Your task to perform on an android device: Open the phone app and click the voicemail tab. Image 0: 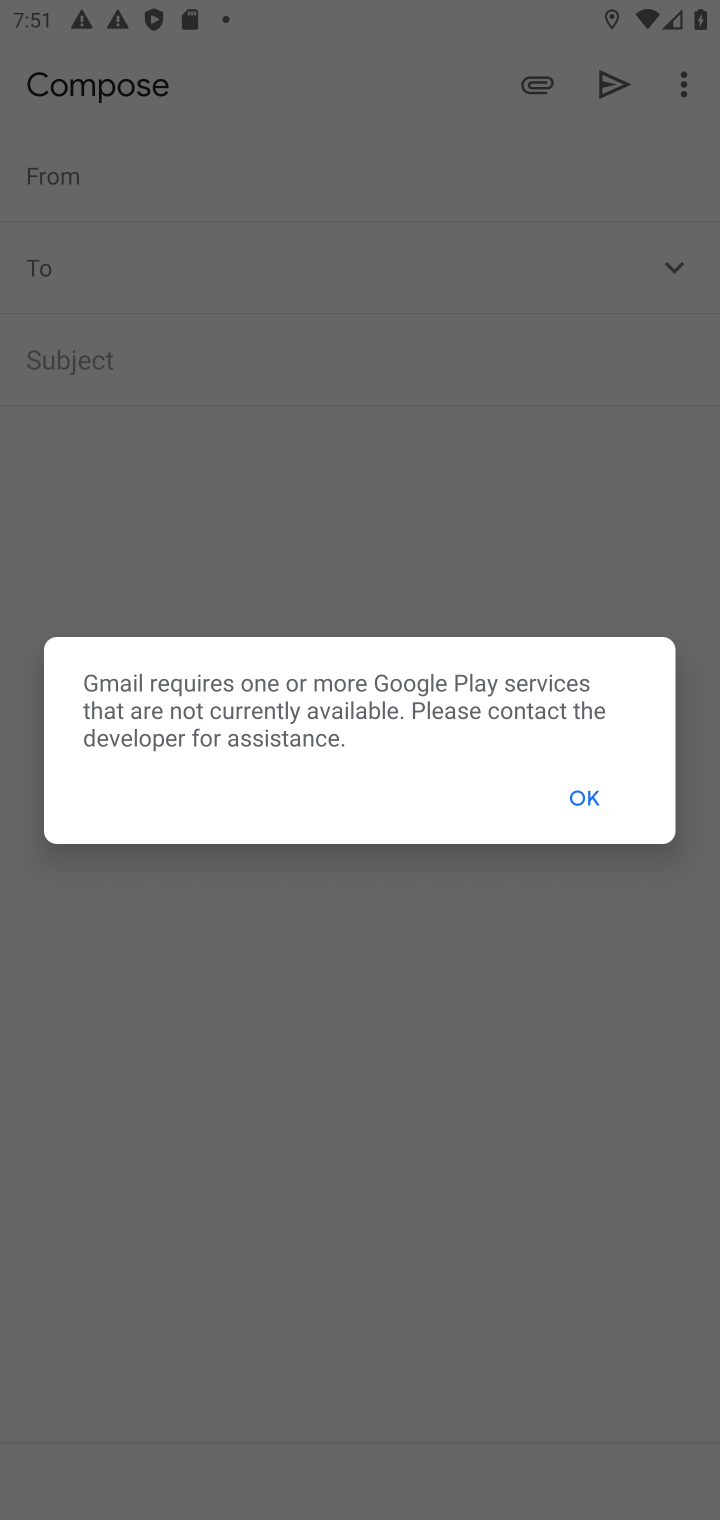
Step 0: press home button
Your task to perform on an android device: Open the phone app and click the voicemail tab. Image 1: 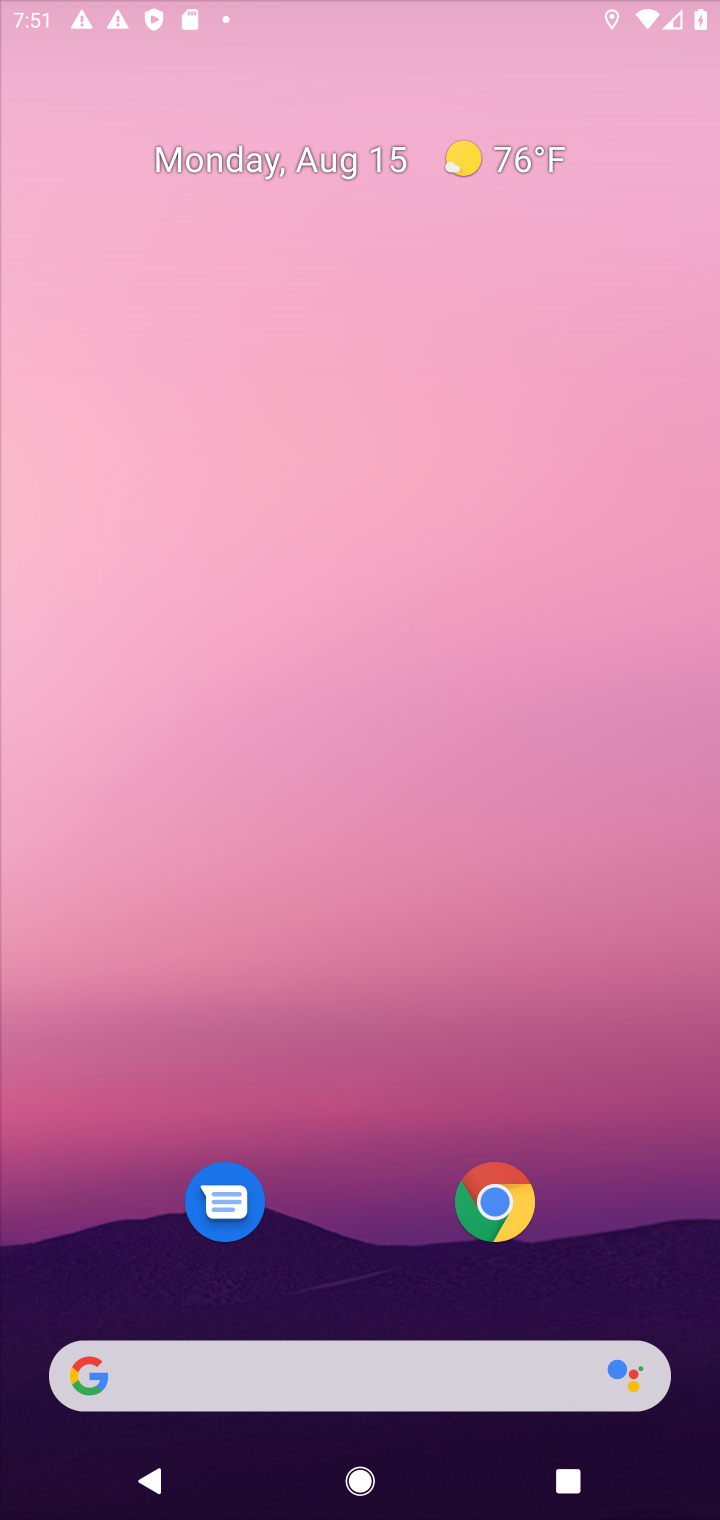
Step 1: press home button
Your task to perform on an android device: Open the phone app and click the voicemail tab. Image 2: 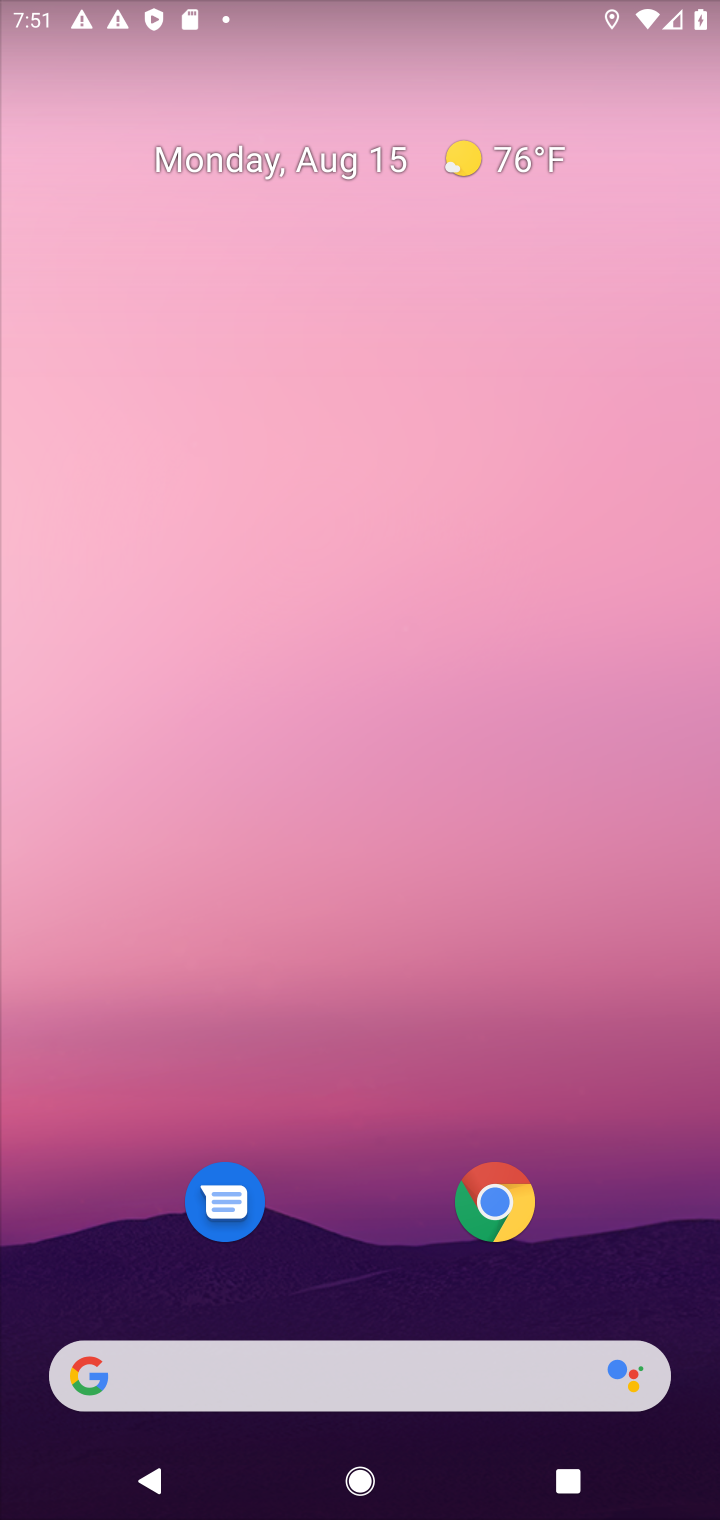
Step 2: drag from (564, 831) to (412, 78)
Your task to perform on an android device: Open the phone app and click the voicemail tab. Image 3: 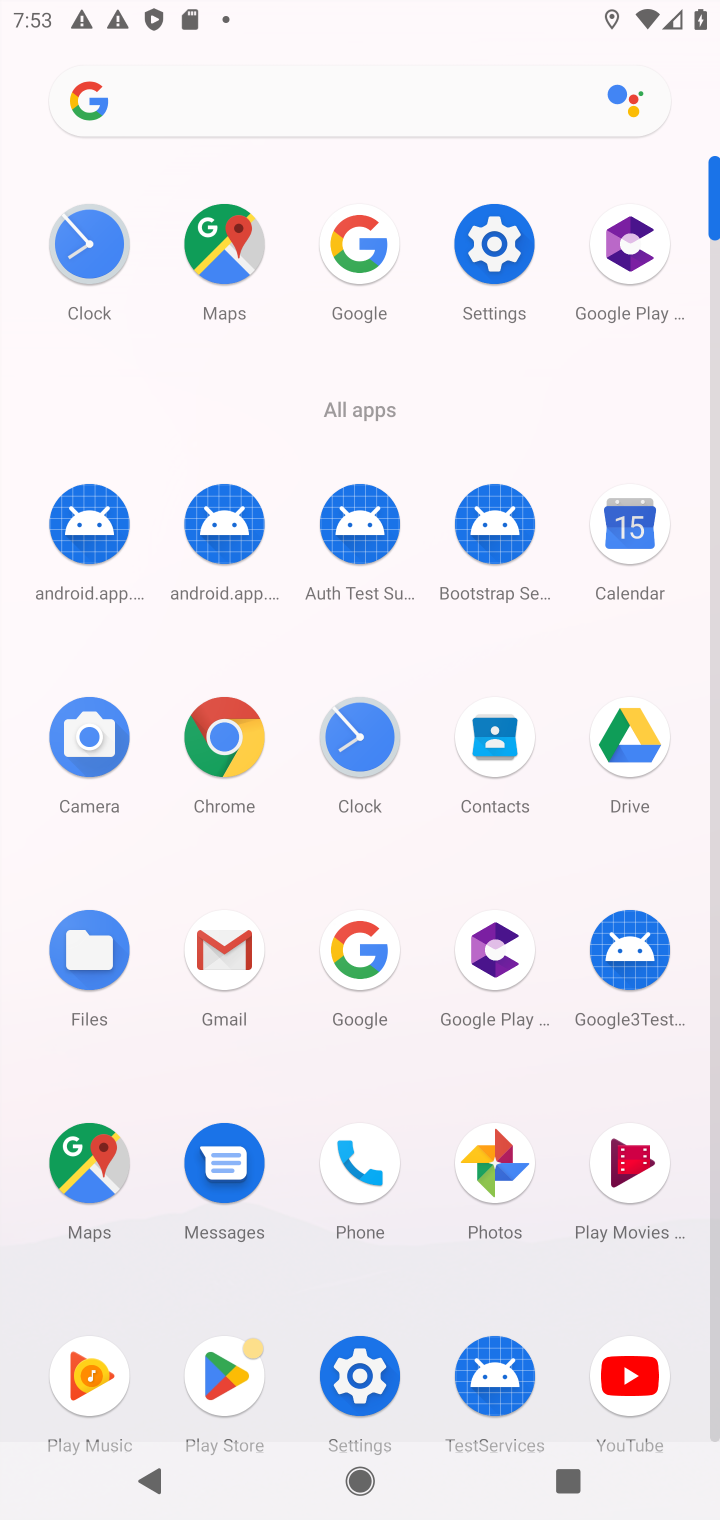
Step 3: click (368, 1180)
Your task to perform on an android device: Open the phone app and click the voicemail tab. Image 4: 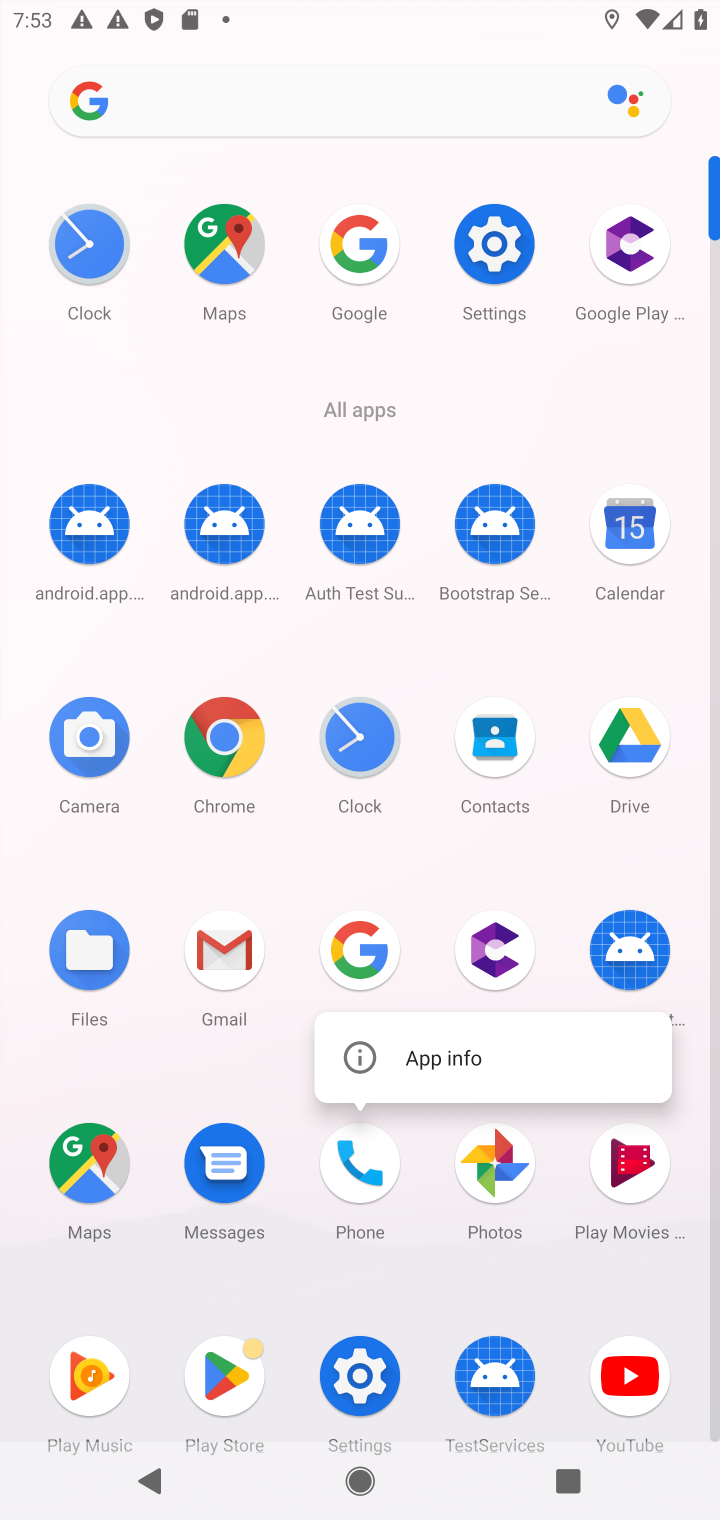
Step 4: click (367, 1178)
Your task to perform on an android device: Open the phone app and click the voicemail tab. Image 5: 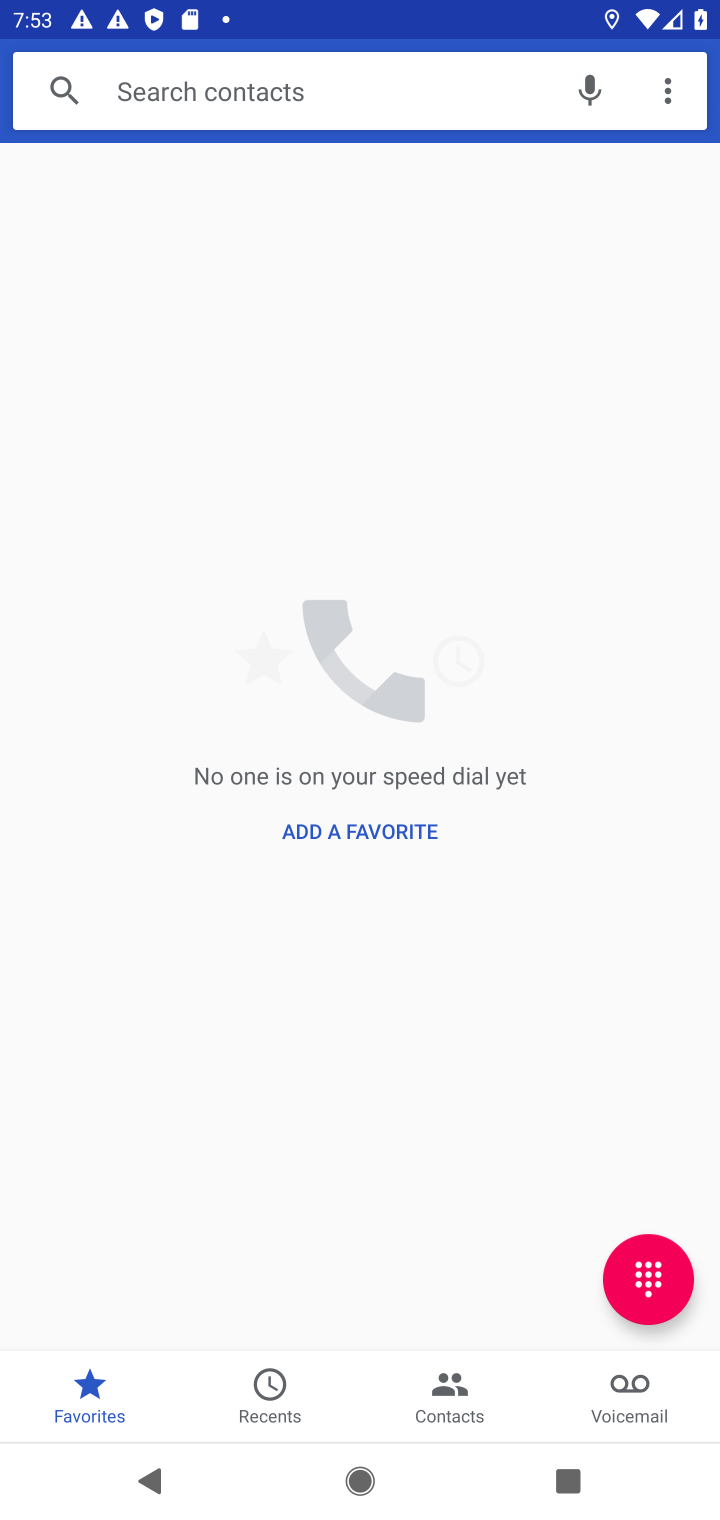
Step 5: click (634, 1399)
Your task to perform on an android device: Open the phone app and click the voicemail tab. Image 6: 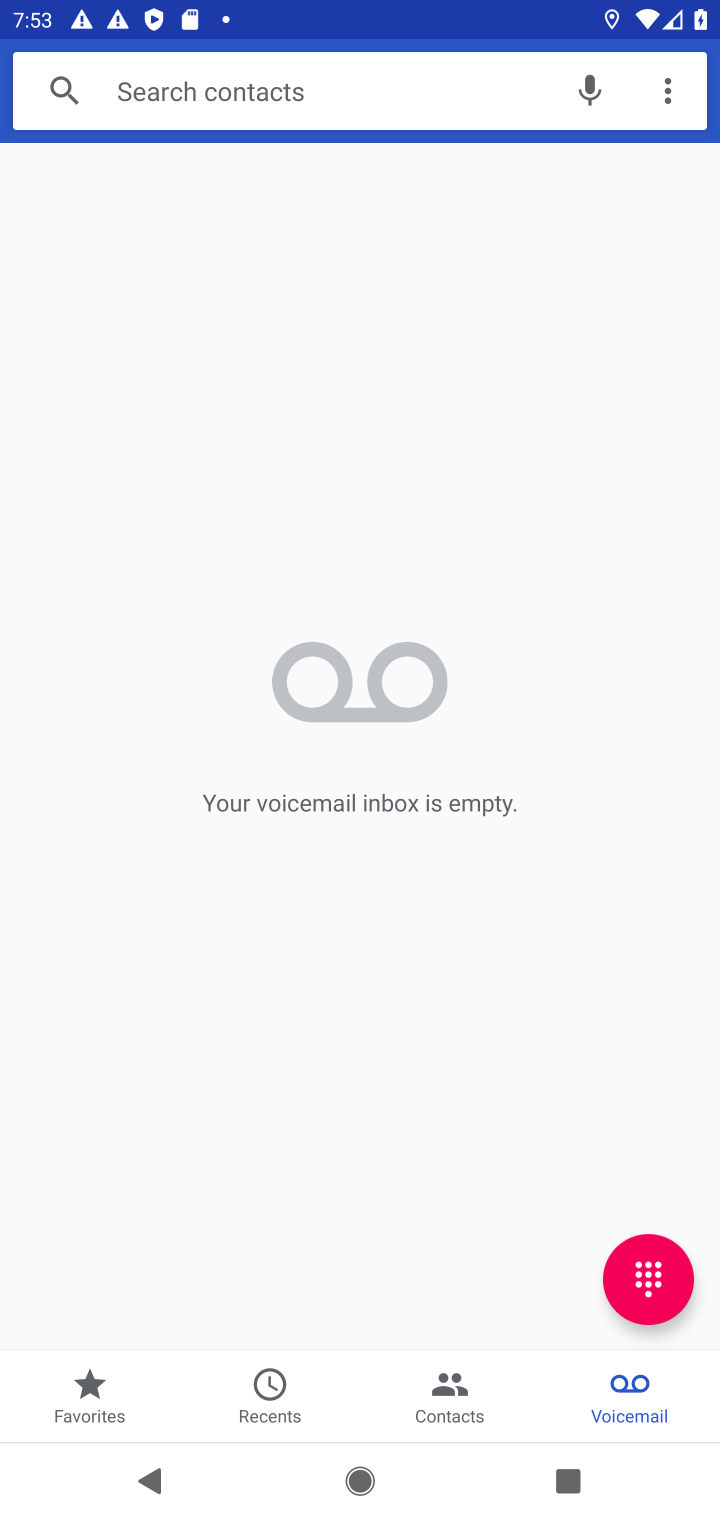
Step 6: task complete